Your task to perform on an android device: turn off javascript in the chrome app Image 0: 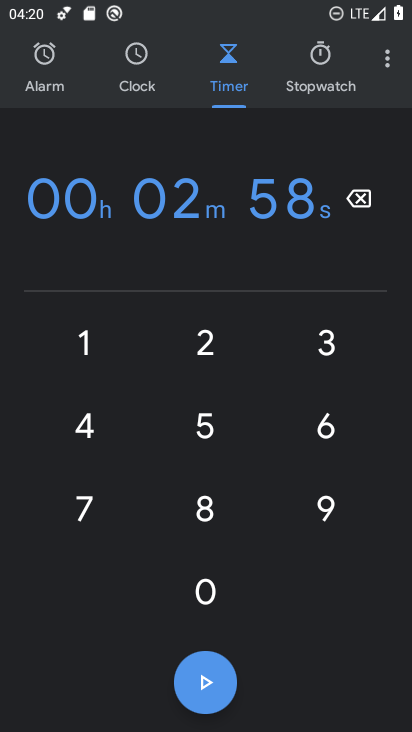
Step 0: press home button
Your task to perform on an android device: turn off javascript in the chrome app Image 1: 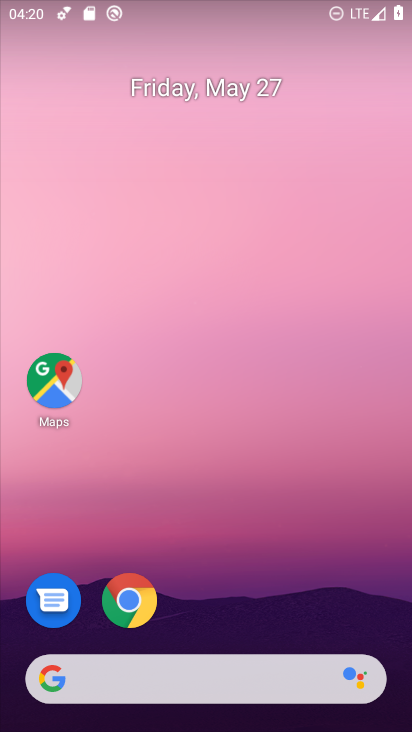
Step 1: click (129, 606)
Your task to perform on an android device: turn off javascript in the chrome app Image 2: 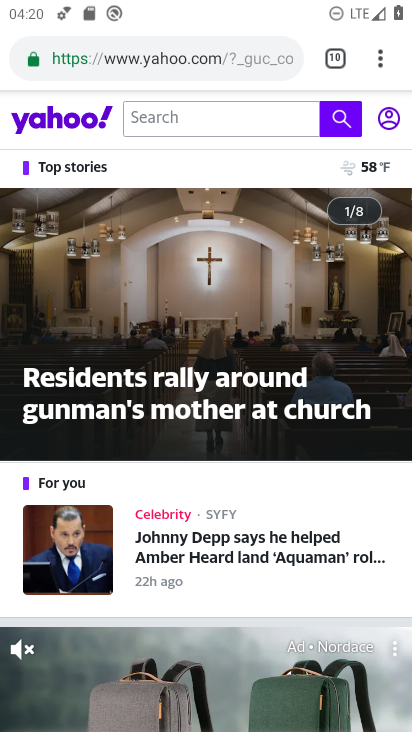
Step 2: click (382, 63)
Your task to perform on an android device: turn off javascript in the chrome app Image 3: 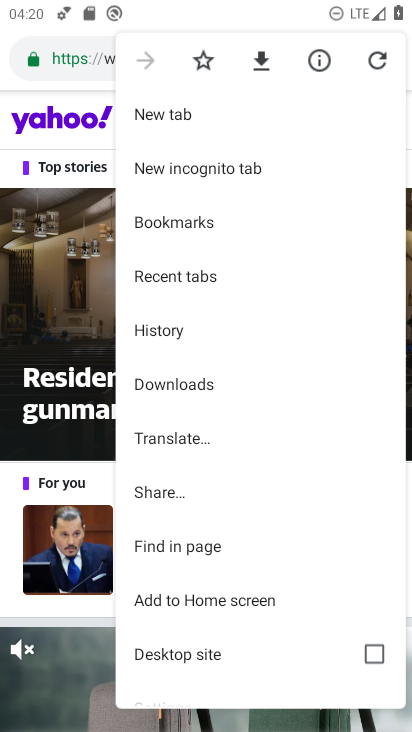
Step 3: drag from (165, 656) to (172, 229)
Your task to perform on an android device: turn off javascript in the chrome app Image 4: 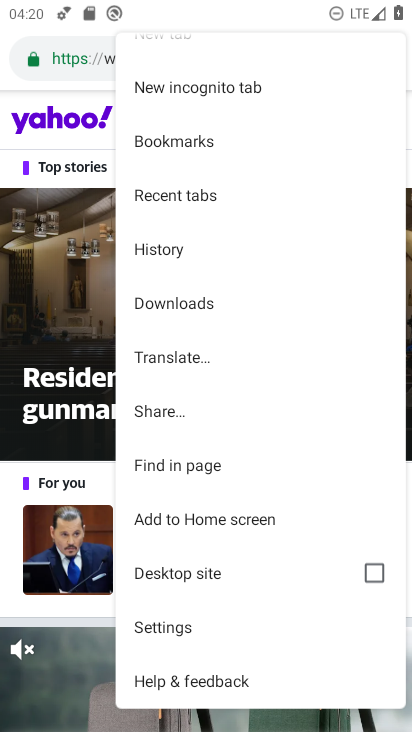
Step 4: click (163, 629)
Your task to perform on an android device: turn off javascript in the chrome app Image 5: 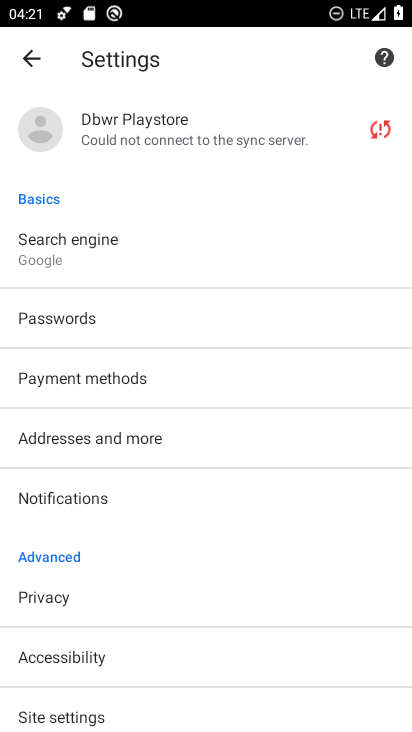
Step 5: drag from (106, 678) to (101, 295)
Your task to perform on an android device: turn off javascript in the chrome app Image 6: 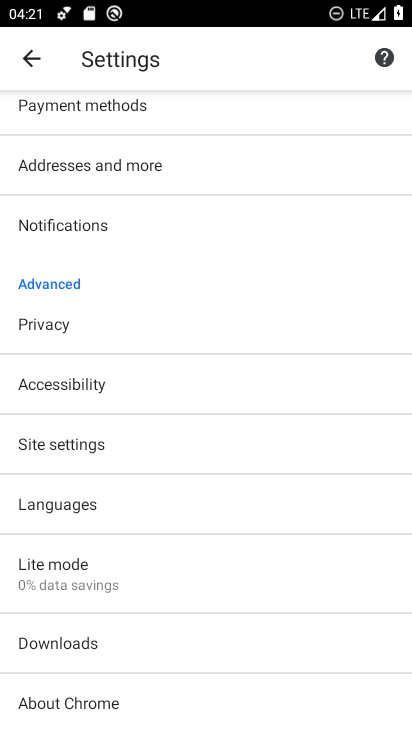
Step 6: click (99, 443)
Your task to perform on an android device: turn off javascript in the chrome app Image 7: 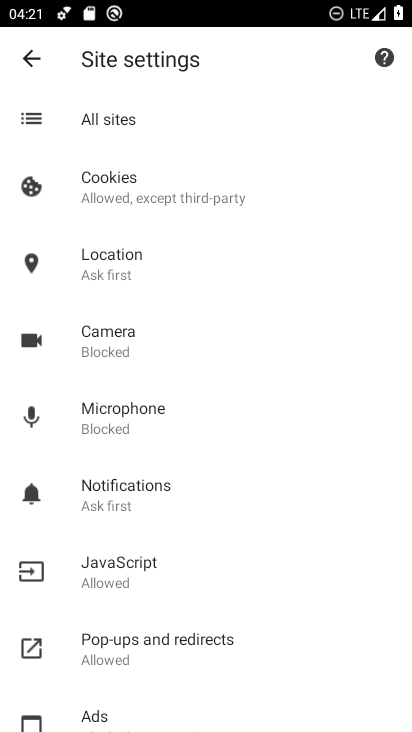
Step 7: click (132, 567)
Your task to perform on an android device: turn off javascript in the chrome app Image 8: 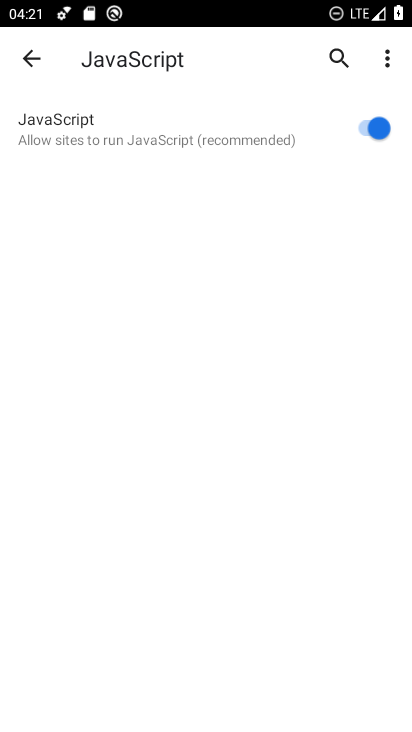
Step 8: click (373, 125)
Your task to perform on an android device: turn off javascript in the chrome app Image 9: 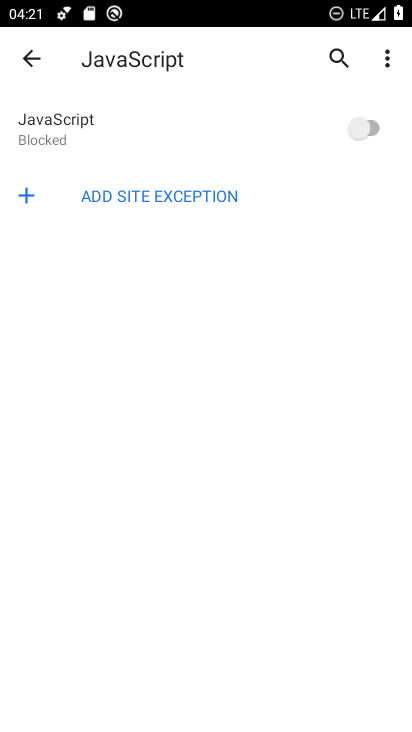
Step 9: task complete